Your task to perform on an android device: change keyboard looks Image 0: 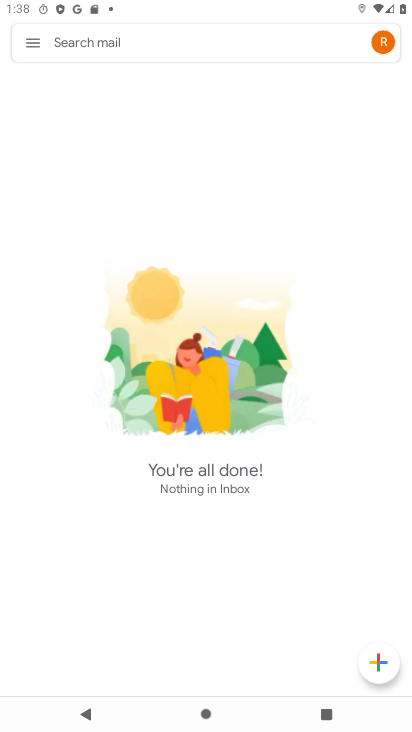
Step 0: press home button
Your task to perform on an android device: change keyboard looks Image 1: 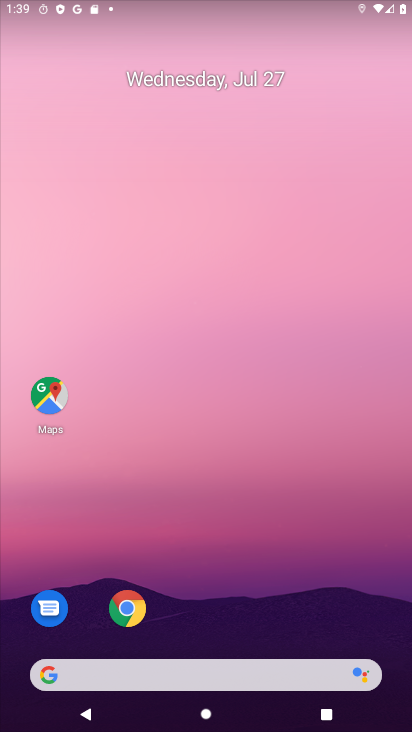
Step 1: drag from (179, 639) to (207, 159)
Your task to perform on an android device: change keyboard looks Image 2: 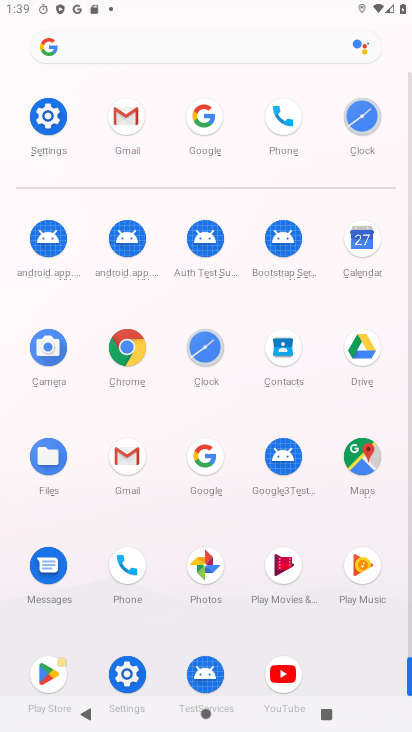
Step 2: click (43, 131)
Your task to perform on an android device: change keyboard looks Image 3: 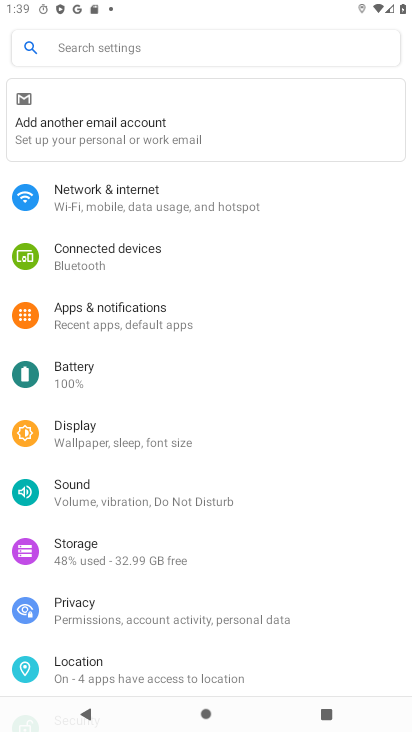
Step 3: click (113, 199)
Your task to perform on an android device: change keyboard looks Image 4: 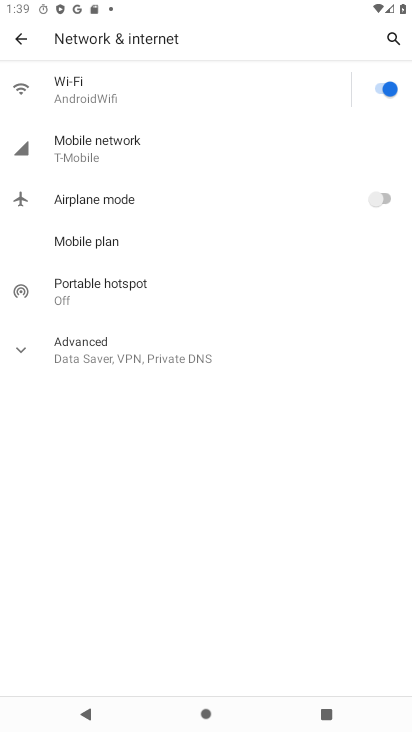
Step 4: click (27, 38)
Your task to perform on an android device: change keyboard looks Image 5: 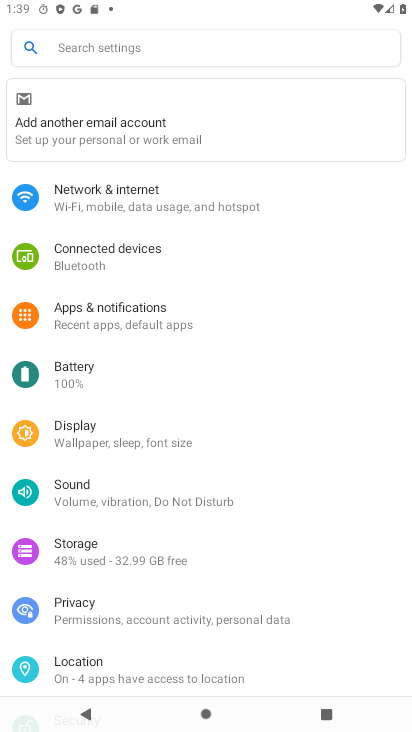
Step 5: drag from (110, 606) to (147, 187)
Your task to perform on an android device: change keyboard looks Image 6: 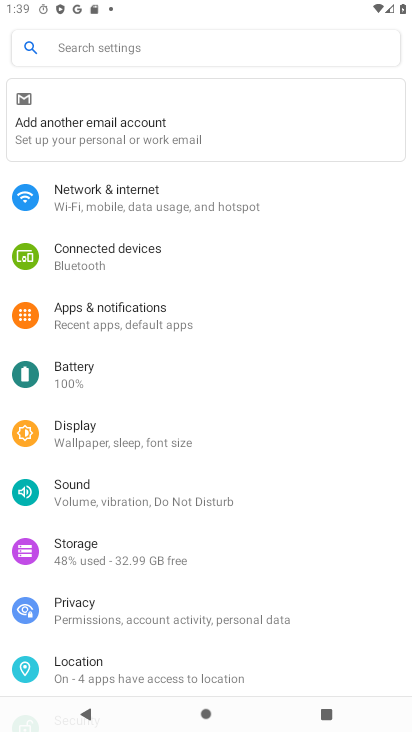
Step 6: drag from (104, 631) to (133, 323)
Your task to perform on an android device: change keyboard looks Image 7: 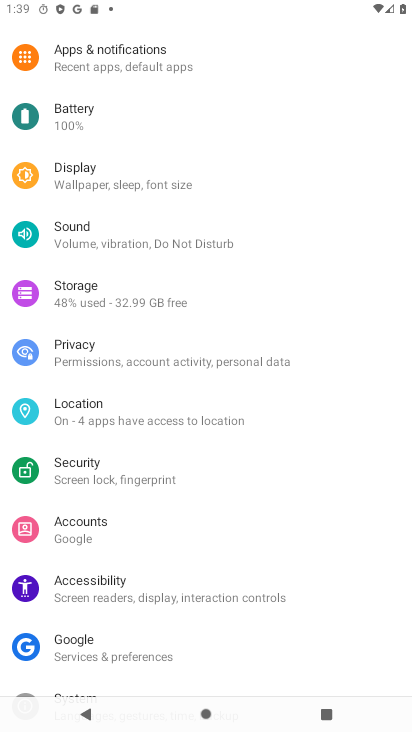
Step 7: drag from (121, 614) to (135, 258)
Your task to perform on an android device: change keyboard looks Image 8: 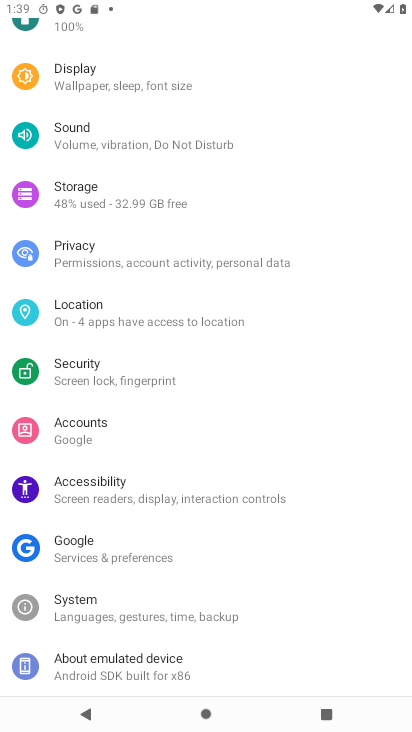
Step 8: click (85, 659)
Your task to perform on an android device: change keyboard looks Image 9: 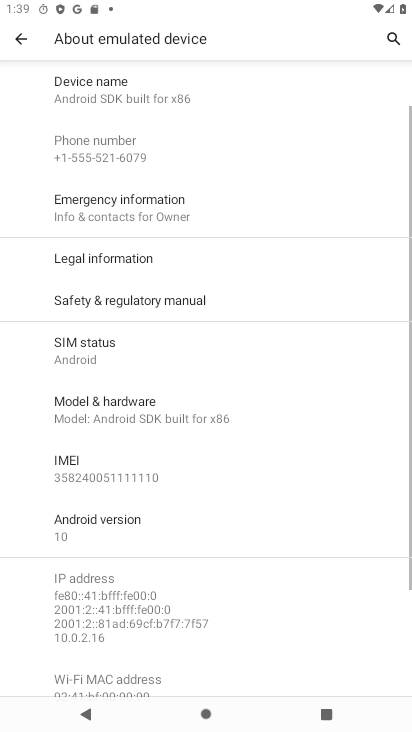
Step 9: task complete